Your task to perform on an android device: Search for the best vacuum on Amazon. Image 0: 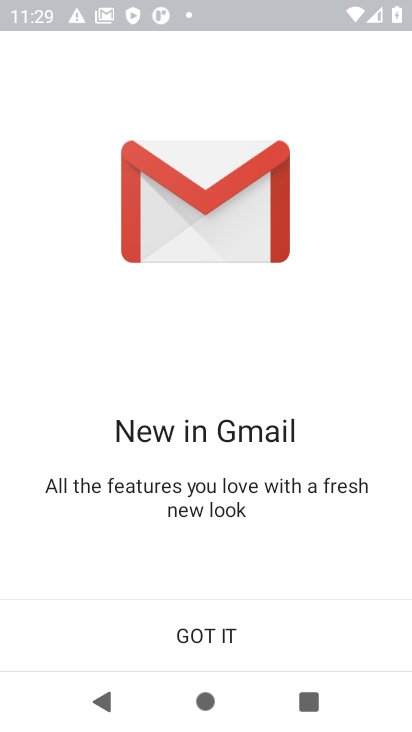
Step 0: press home button
Your task to perform on an android device: Search for the best vacuum on Amazon. Image 1: 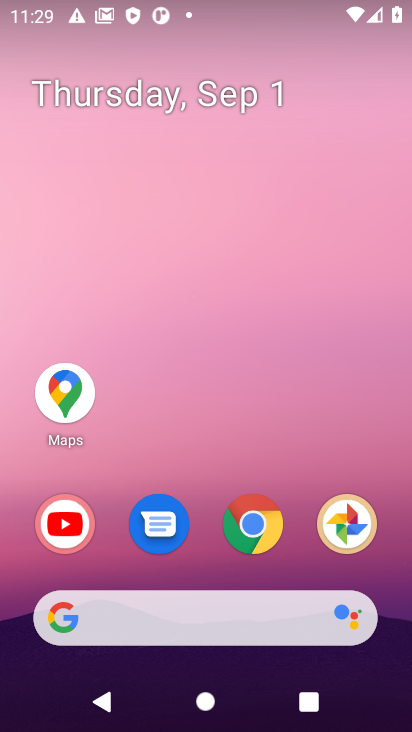
Step 1: click (260, 525)
Your task to perform on an android device: Search for the best vacuum on Amazon. Image 2: 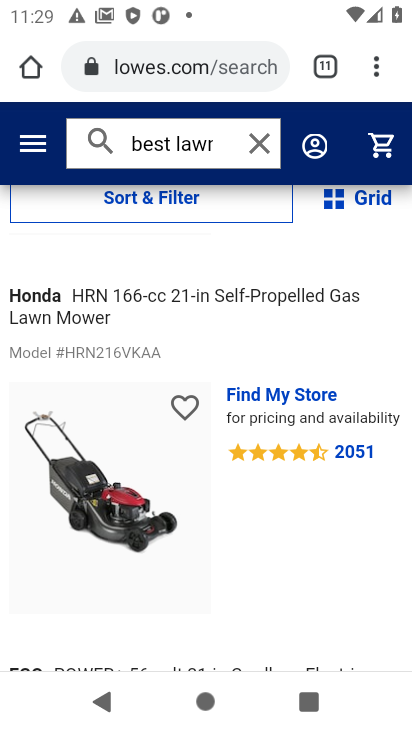
Step 2: click (327, 64)
Your task to perform on an android device: Search for the best vacuum on Amazon. Image 3: 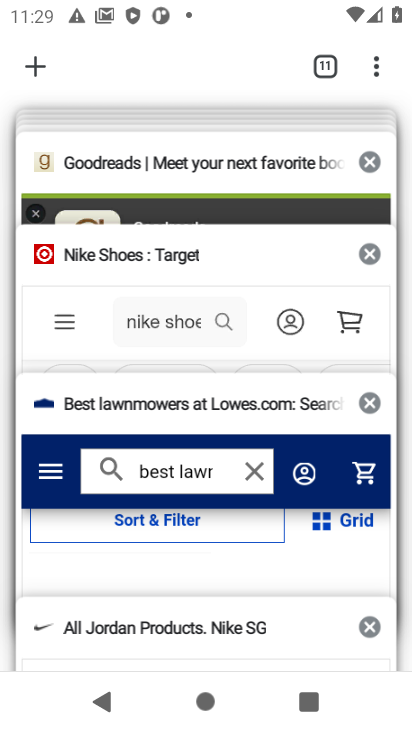
Step 3: drag from (182, 186) to (194, 548)
Your task to perform on an android device: Search for the best vacuum on Amazon. Image 4: 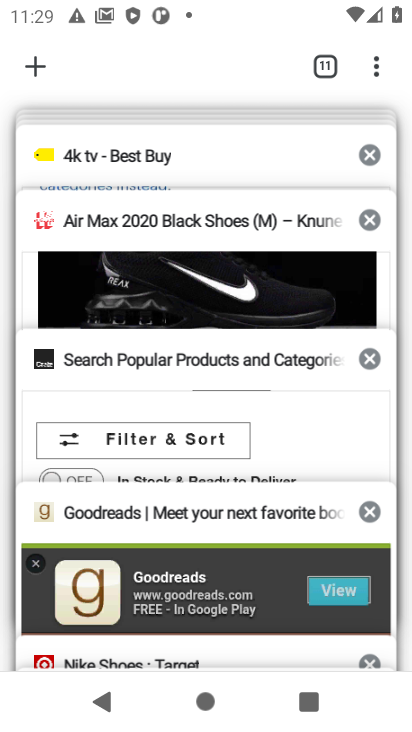
Step 4: drag from (176, 318) to (187, 597)
Your task to perform on an android device: Search for the best vacuum on Amazon. Image 5: 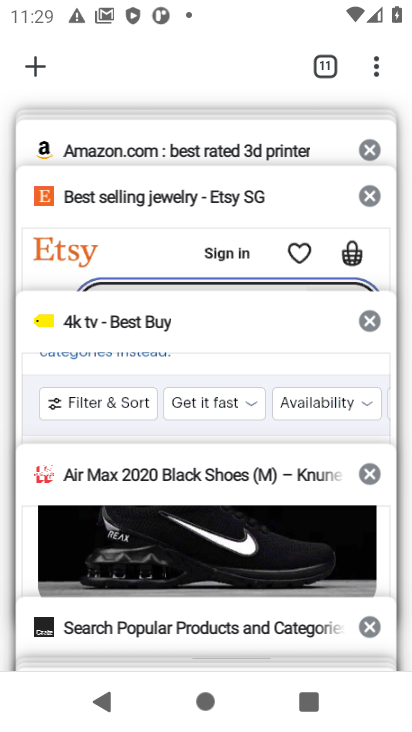
Step 5: click (224, 143)
Your task to perform on an android device: Search for the best vacuum on Amazon. Image 6: 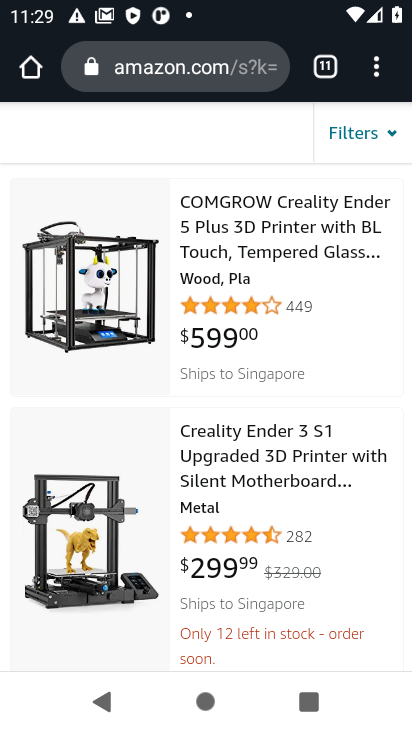
Step 6: drag from (295, 171) to (303, 471)
Your task to perform on an android device: Search for the best vacuum on Amazon. Image 7: 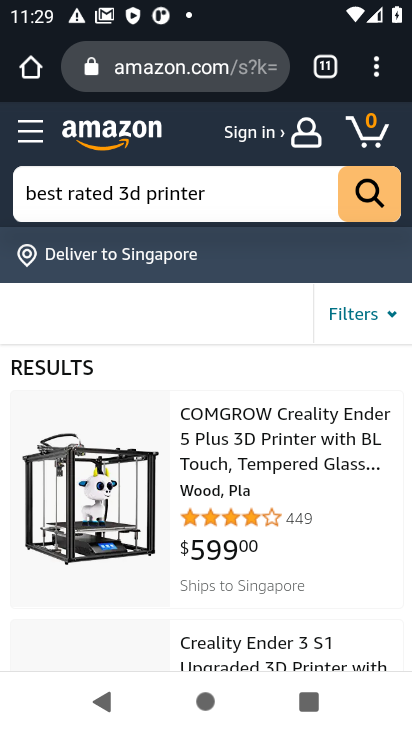
Step 7: click (240, 194)
Your task to perform on an android device: Search for the best vacuum on Amazon. Image 8: 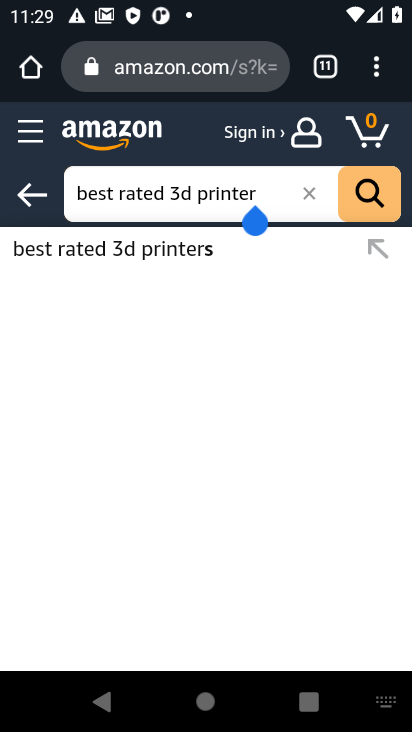
Step 8: click (314, 198)
Your task to perform on an android device: Search for the best vacuum on Amazon. Image 9: 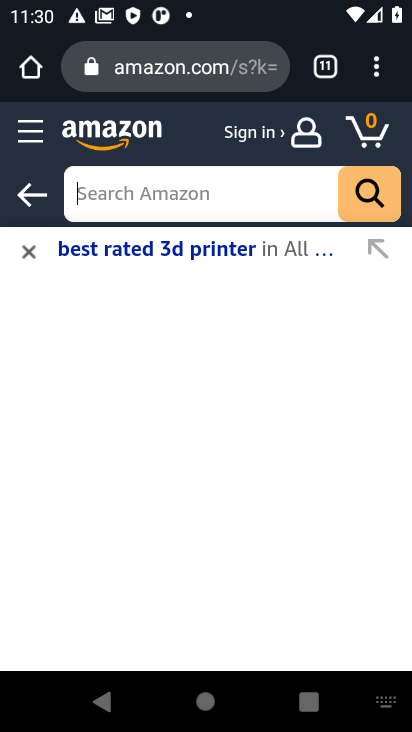
Step 9: type "best vacuum"
Your task to perform on an android device: Search for the best vacuum on Amazon. Image 10: 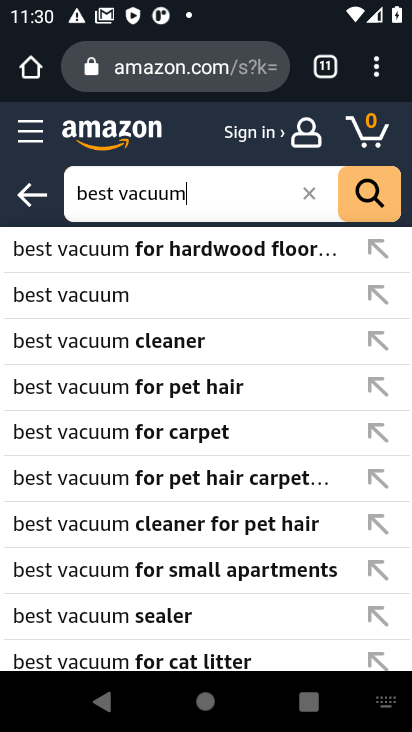
Step 10: click (107, 294)
Your task to perform on an android device: Search for the best vacuum on Amazon. Image 11: 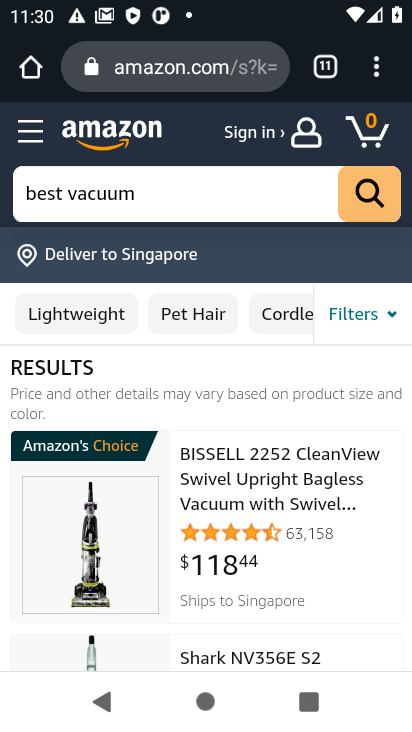
Step 11: task complete